Your task to perform on an android device: change keyboard looks Image 0: 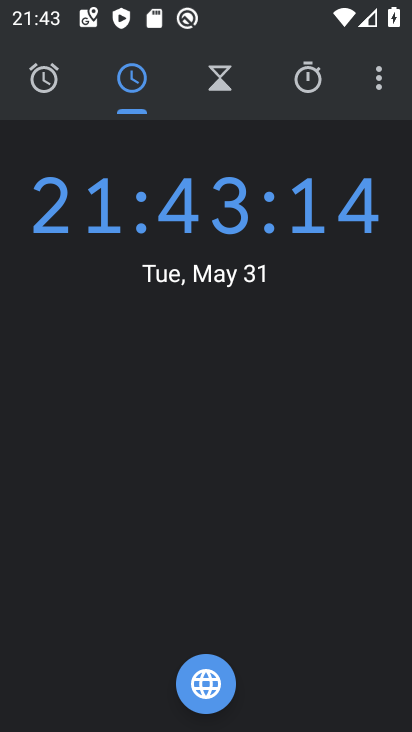
Step 0: press home button
Your task to perform on an android device: change keyboard looks Image 1: 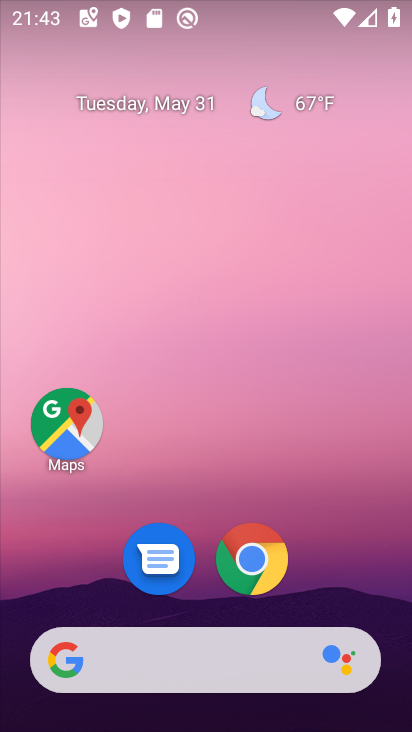
Step 1: drag from (219, 594) to (231, 71)
Your task to perform on an android device: change keyboard looks Image 2: 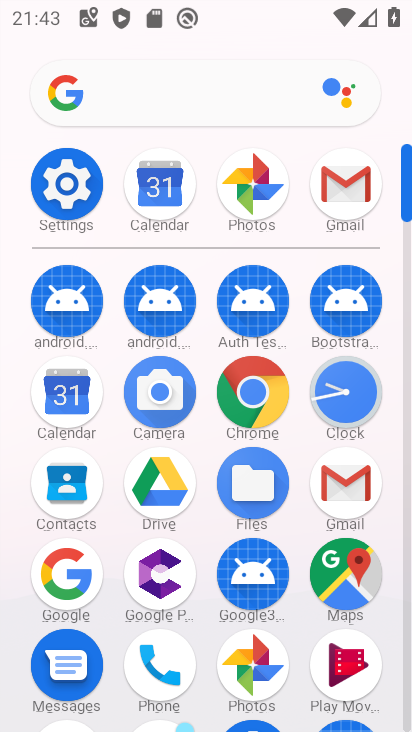
Step 2: click (62, 184)
Your task to perform on an android device: change keyboard looks Image 3: 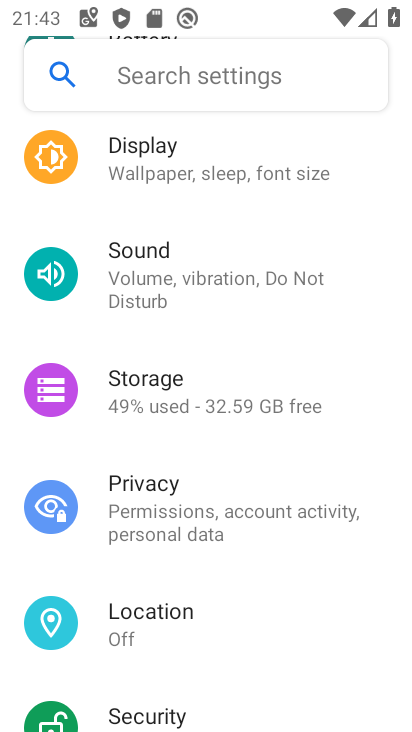
Step 3: drag from (185, 602) to (253, 61)
Your task to perform on an android device: change keyboard looks Image 4: 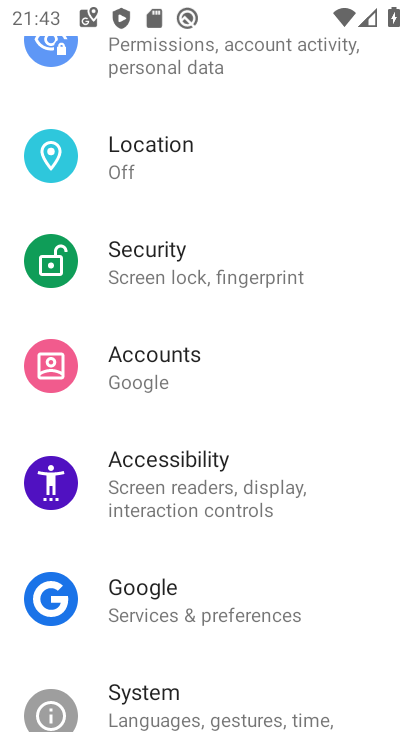
Step 4: click (177, 707)
Your task to perform on an android device: change keyboard looks Image 5: 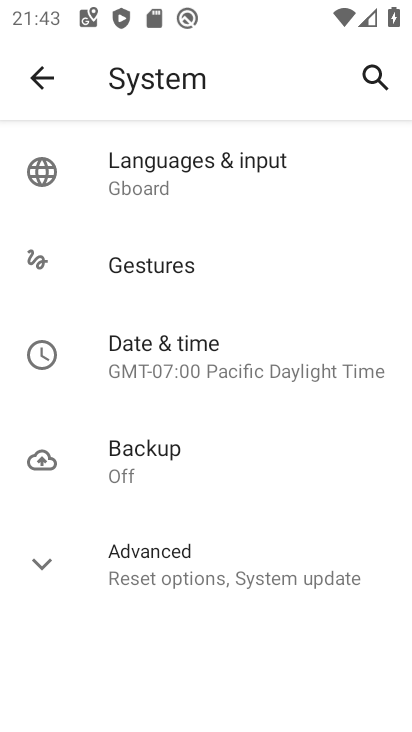
Step 5: click (158, 177)
Your task to perform on an android device: change keyboard looks Image 6: 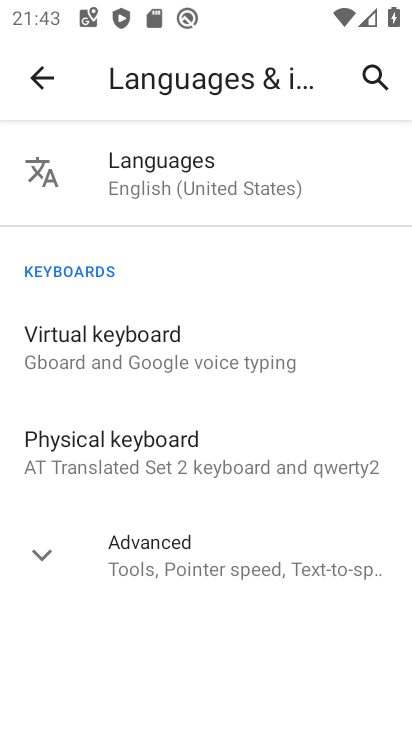
Step 6: click (140, 361)
Your task to perform on an android device: change keyboard looks Image 7: 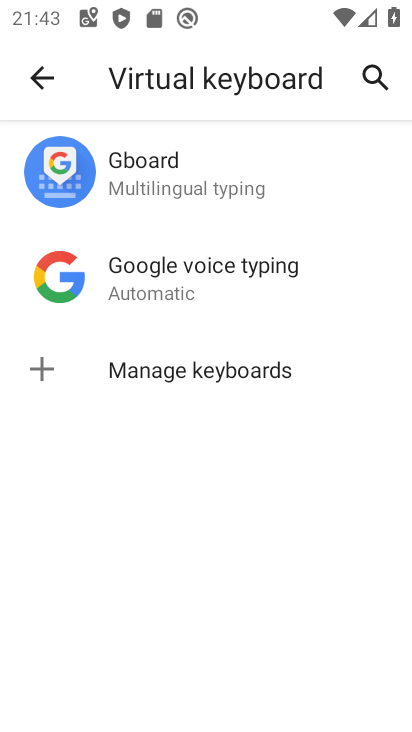
Step 7: click (129, 193)
Your task to perform on an android device: change keyboard looks Image 8: 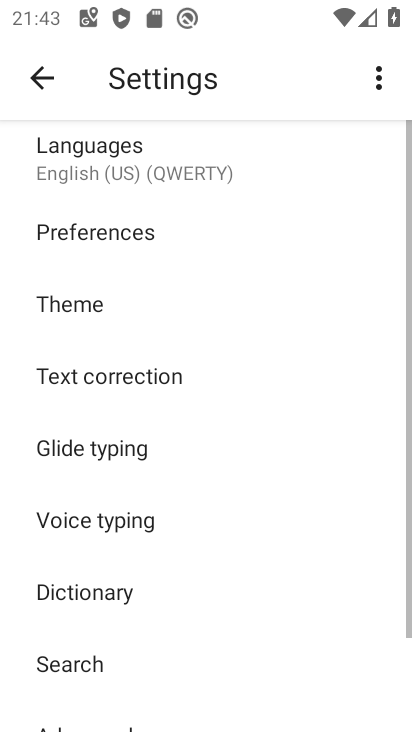
Step 8: click (88, 307)
Your task to perform on an android device: change keyboard looks Image 9: 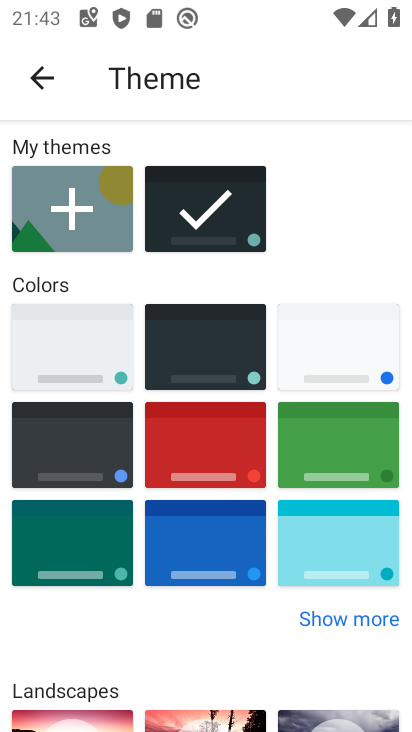
Step 9: click (187, 337)
Your task to perform on an android device: change keyboard looks Image 10: 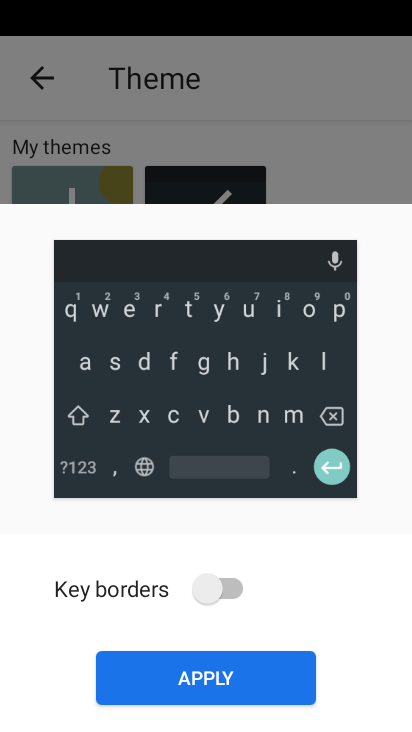
Step 10: click (245, 680)
Your task to perform on an android device: change keyboard looks Image 11: 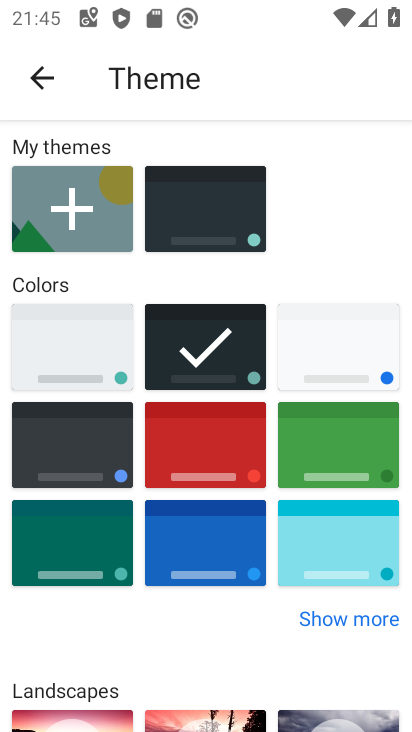
Step 11: task complete